Your task to perform on an android device: Open Yahoo.com Image 0: 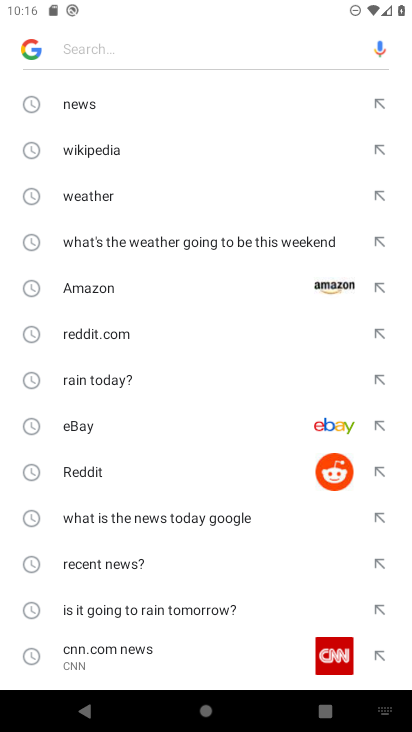
Step 0: press back button
Your task to perform on an android device: Open Yahoo.com Image 1: 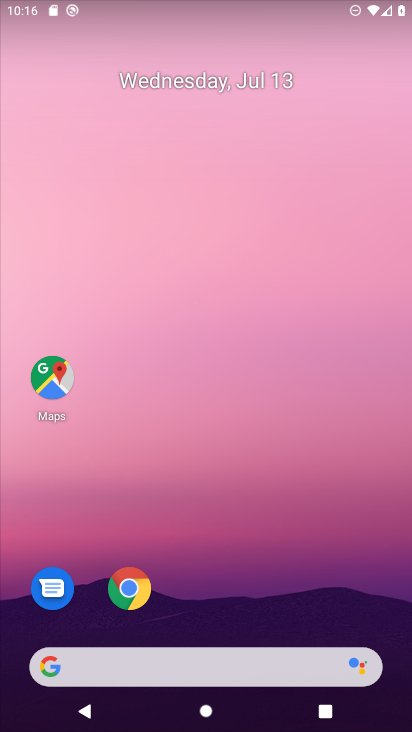
Step 1: drag from (195, 630) to (206, 73)
Your task to perform on an android device: Open Yahoo.com Image 2: 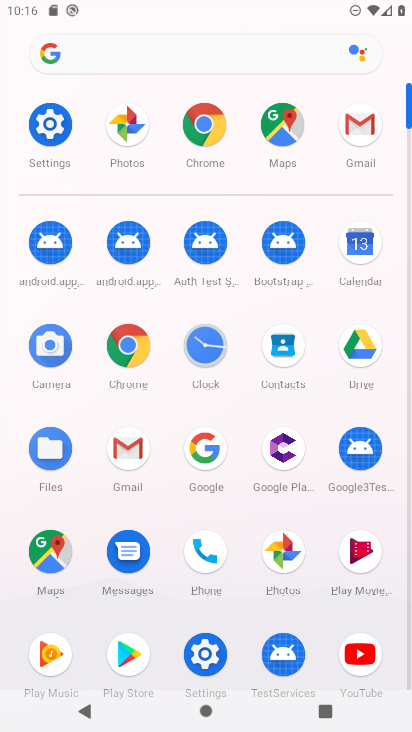
Step 2: click (216, 121)
Your task to perform on an android device: Open Yahoo.com Image 3: 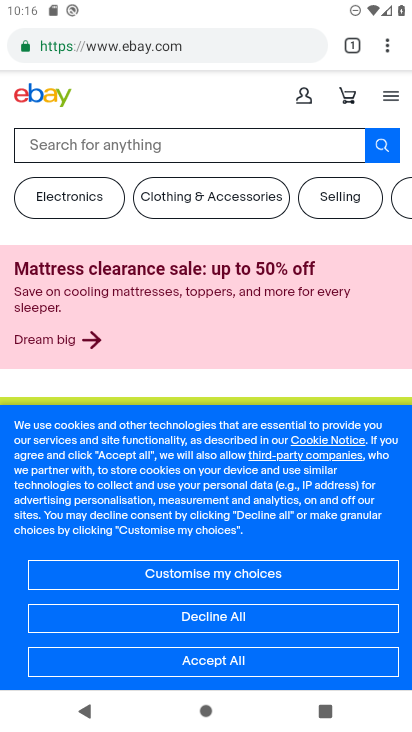
Step 3: click (347, 45)
Your task to perform on an android device: Open Yahoo.com Image 4: 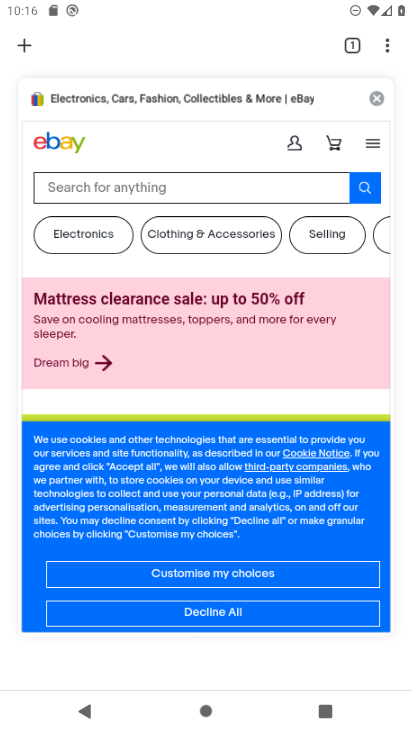
Step 4: click (30, 47)
Your task to perform on an android device: Open Yahoo.com Image 5: 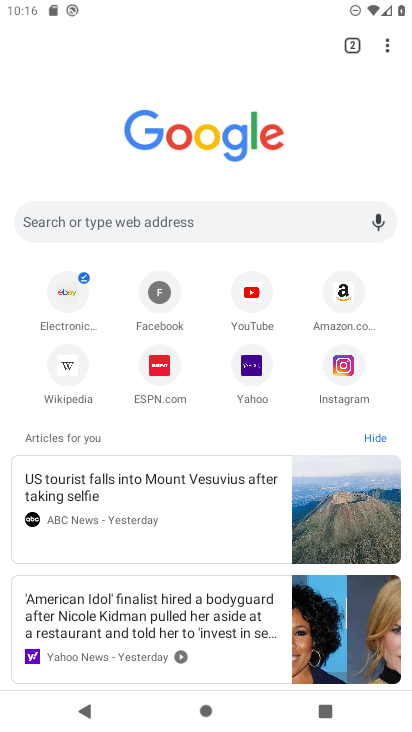
Step 5: click (254, 364)
Your task to perform on an android device: Open Yahoo.com Image 6: 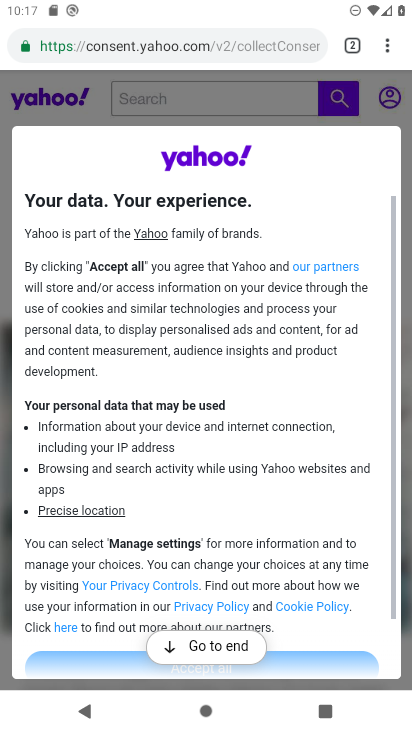
Step 6: click (348, 648)
Your task to perform on an android device: Open Yahoo.com Image 7: 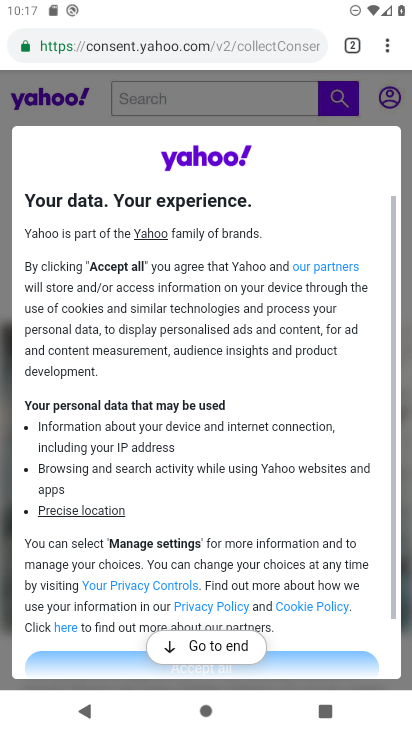
Step 7: task complete